Your task to perform on an android device: Is it going to rain today? Image 0: 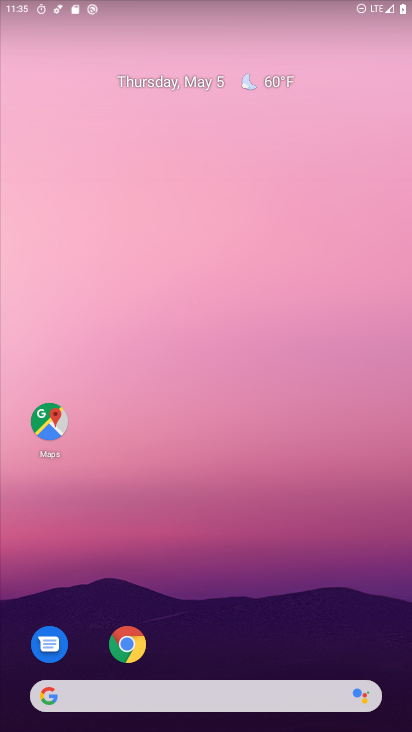
Step 0: drag from (366, 643) to (366, 155)
Your task to perform on an android device: Is it going to rain today? Image 1: 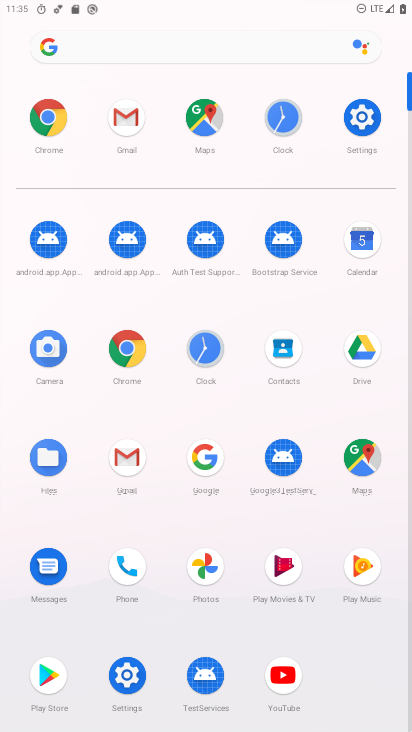
Step 1: click (44, 131)
Your task to perform on an android device: Is it going to rain today? Image 2: 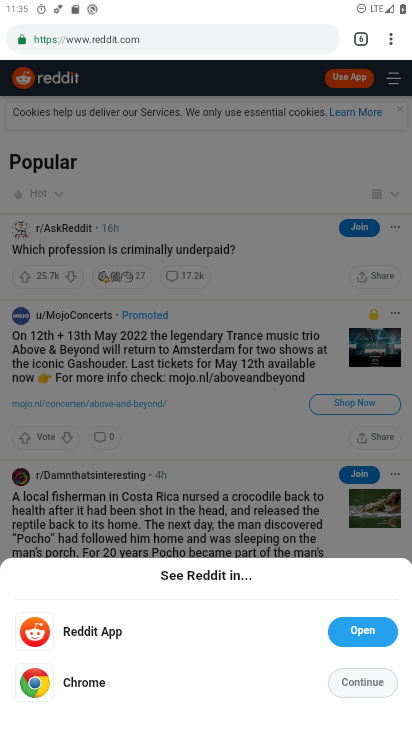
Step 2: click (157, 24)
Your task to perform on an android device: Is it going to rain today? Image 3: 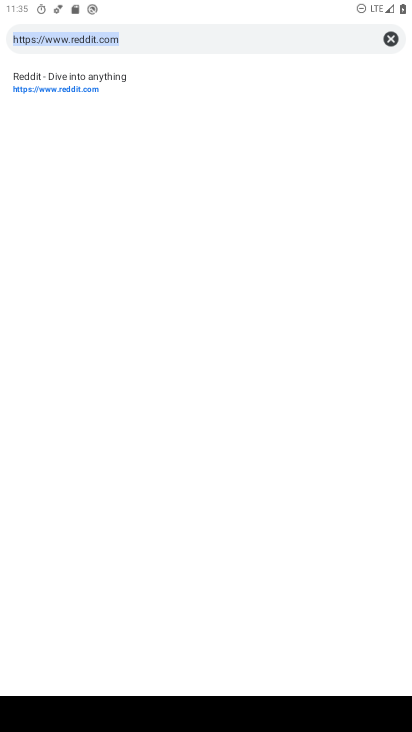
Step 3: click (393, 36)
Your task to perform on an android device: Is it going to rain today? Image 4: 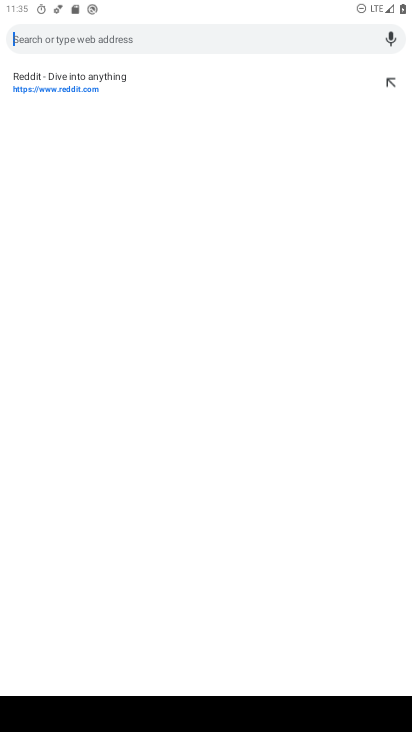
Step 4: type "is it going to rain today"
Your task to perform on an android device: Is it going to rain today? Image 5: 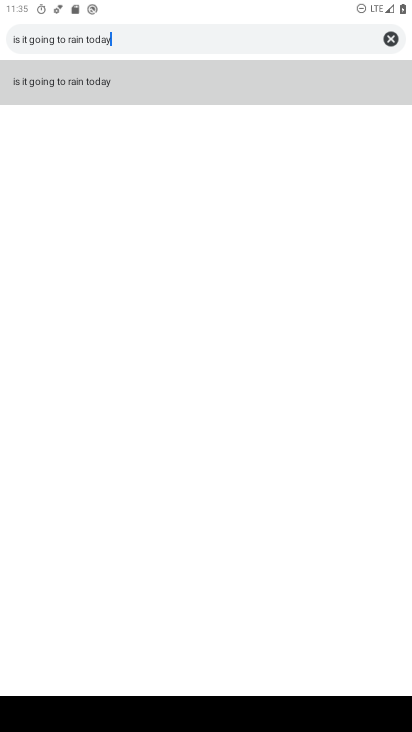
Step 5: click (109, 83)
Your task to perform on an android device: Is it going to rain today? Image 6: 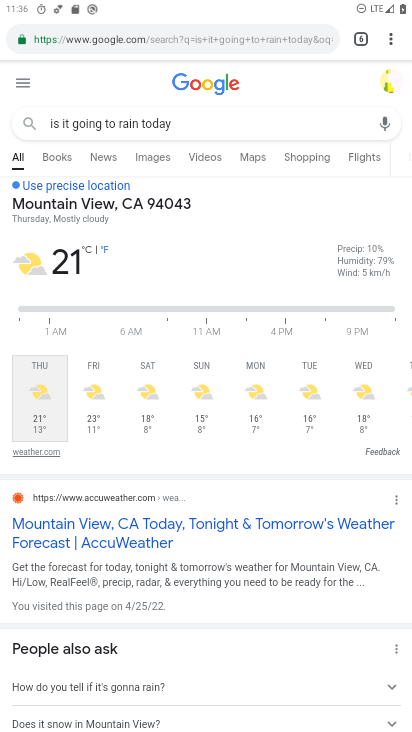
Step 6: task complete